Your task to perform on an android device: change the clock display to analog Image 0: 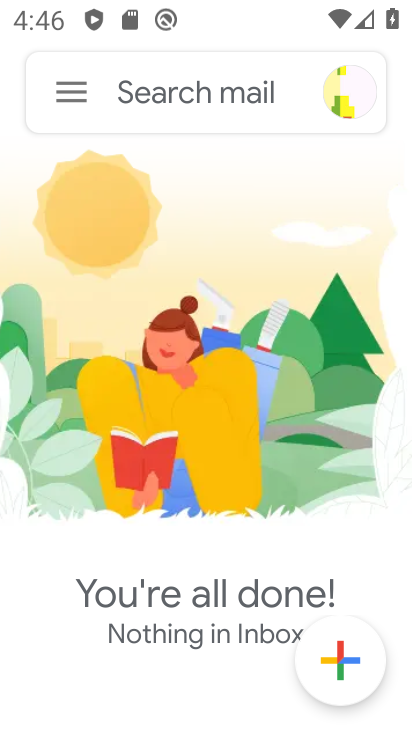
Step 0: press home button
Your task to perform on an android device: change the clock display to analog Image 1: 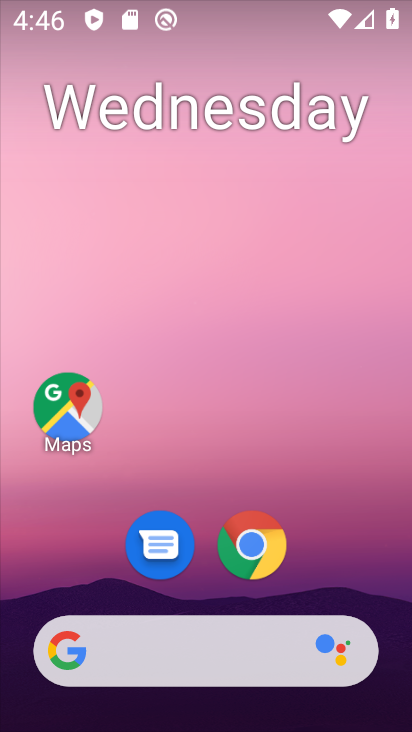
Step 1: drag from (334, 535) to (313, 133)
Your task to perform on an android device: change the clock display to analog Image 2: 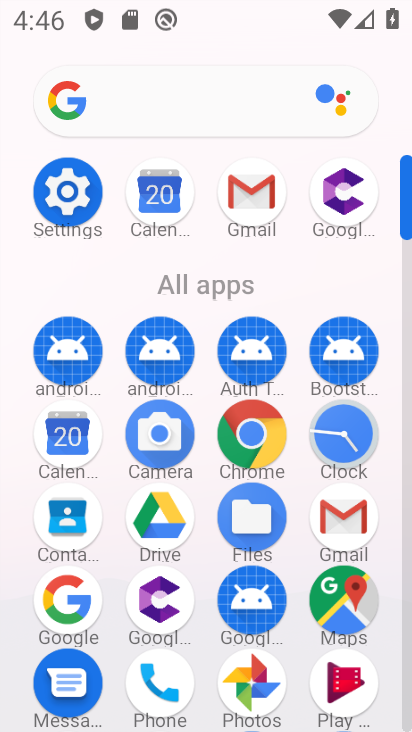
Step 2: click (327, 433)
Your task to perform on an android device: change the clock display to analog Image 3: 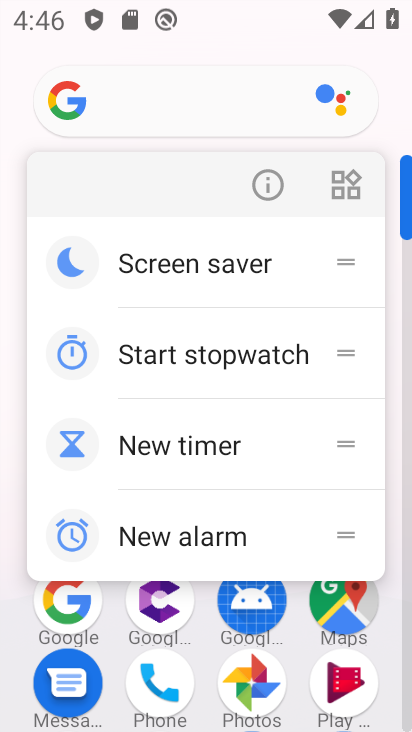
Step 3: click (206, 637)
Your task to perform on an android device: change the clock display to analog Image 4: 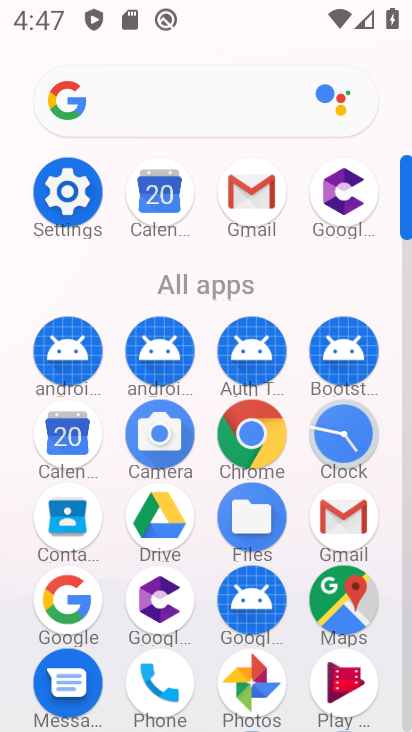
Step 4: click (336, 429)
Your task to perform on an android device: change the clock display to analog Image 5: 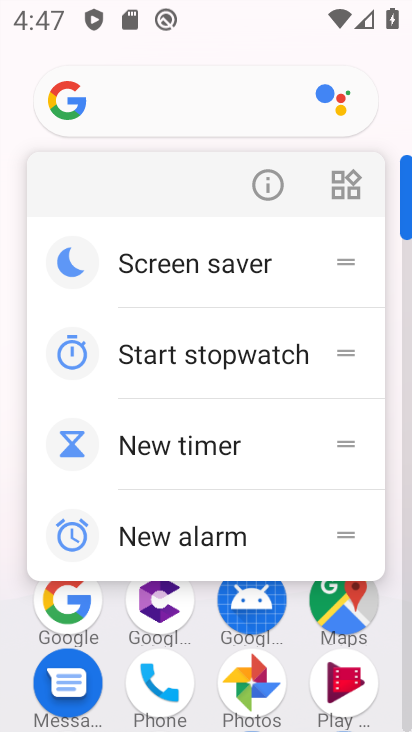
Step 5: click (286, 57)
Your task to perform on an android device: change the clock display to analog Image 6: 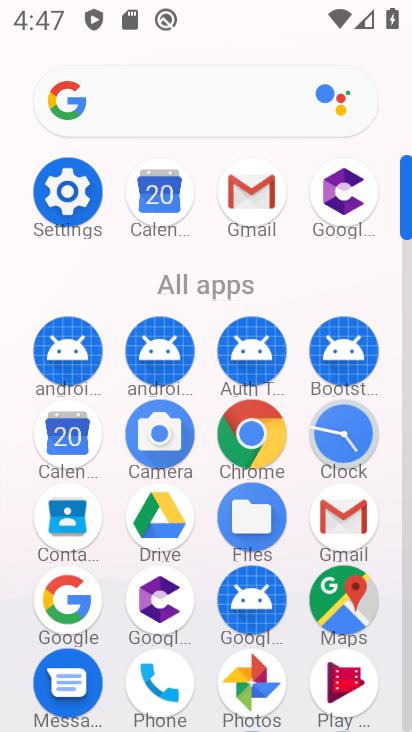
Step 6: click (331, 434)
Your task to perform on an android device: change the clock display to analog Image 7: 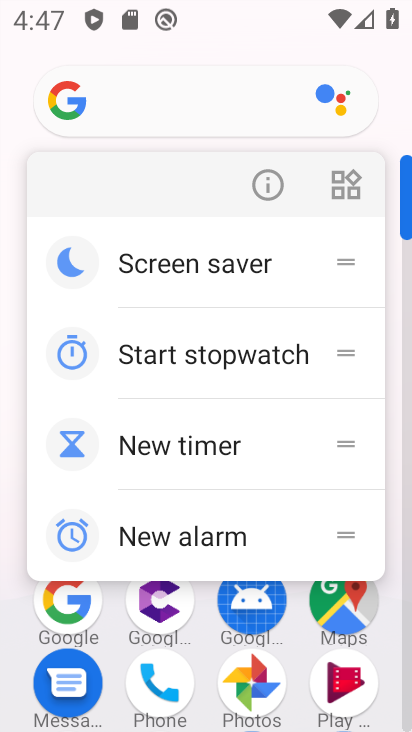
Step 7: click (387, 103)
Your task to perform on an android device: change the clock display to analog Image 8: 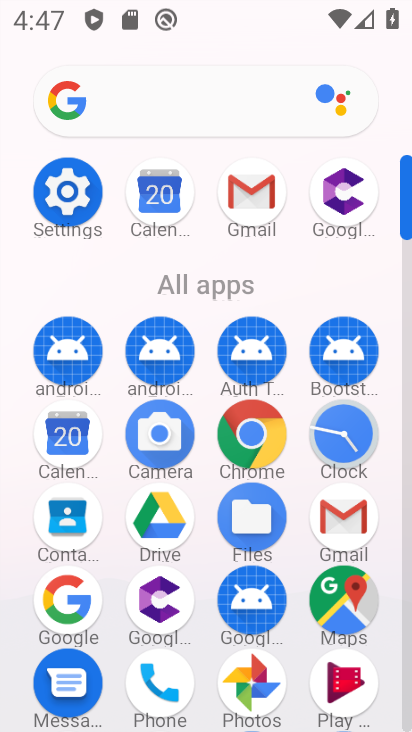
Step 8: click (347, 423)
Your task to perform on an android device: change the clock display to analog Image 9: 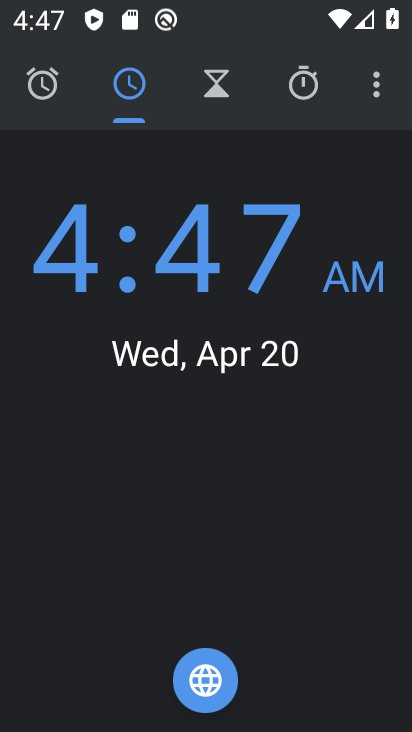
Step 9: click (375, 82)
Your task to perform on an android device: change the clock display to analog Image 10: 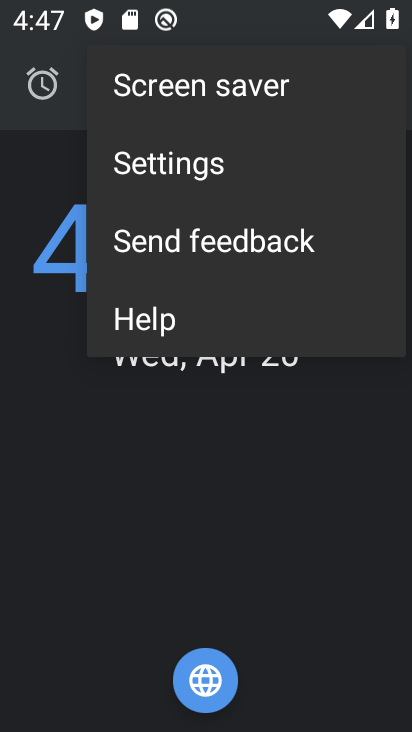
Step 10: click (225, 164)
Your task to perform on an android device: change the clock display to analog Image 11: 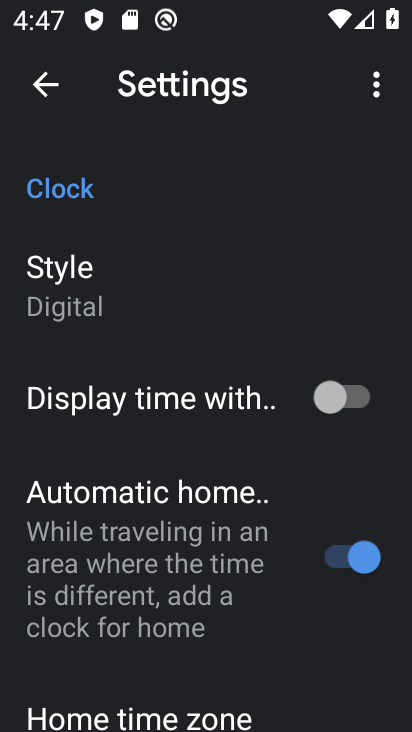
Step 11: click (67, 273)
Your task to perform on an android device: change the clock display to analog Image 12: 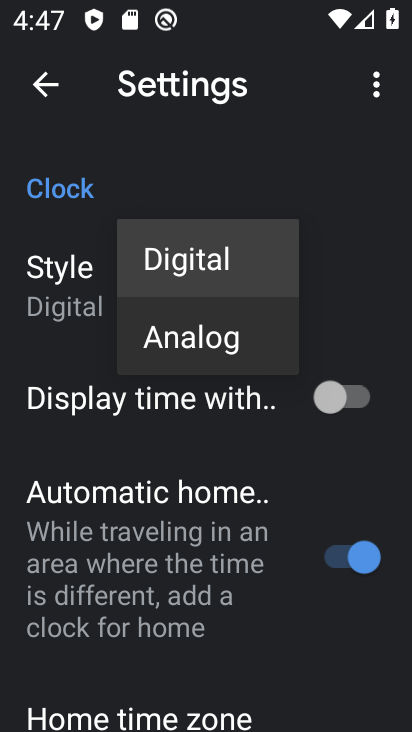
Step 12: click (183, 352)
Your task to perform on an android device: change the clock display to analog Image 13: 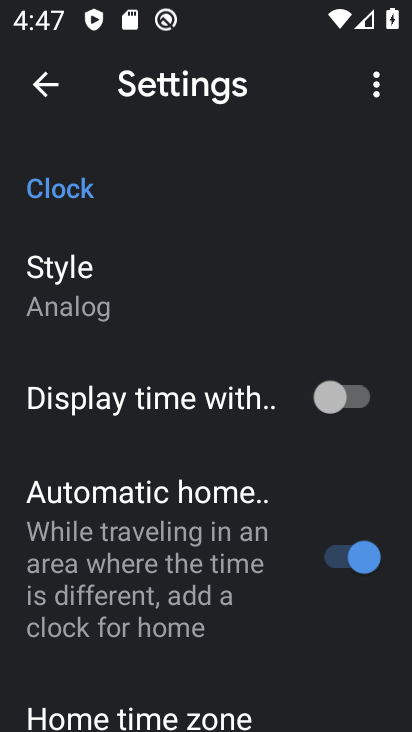
Step 13: task complete